Your task to perform on an android device: Find coffee shops on Maps Image 0: 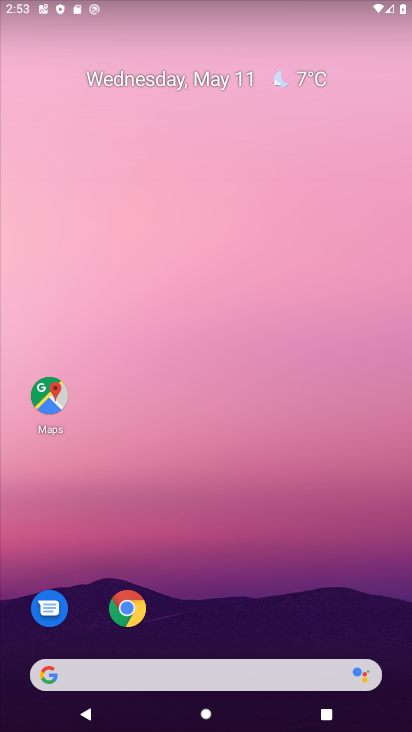
Step 0: click (61, 390)
Your task to perform on an android device: Find coffee shops on Maps Image 1: 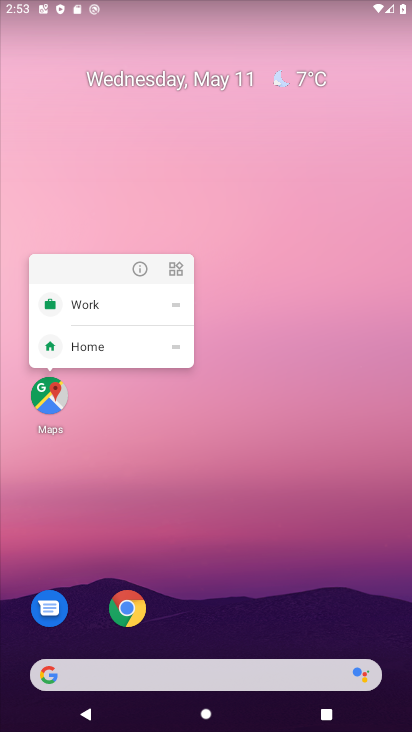
Step 1: click (43, 406)
Your task to perform on an android device: Find coffee shops on Maps Image 2: 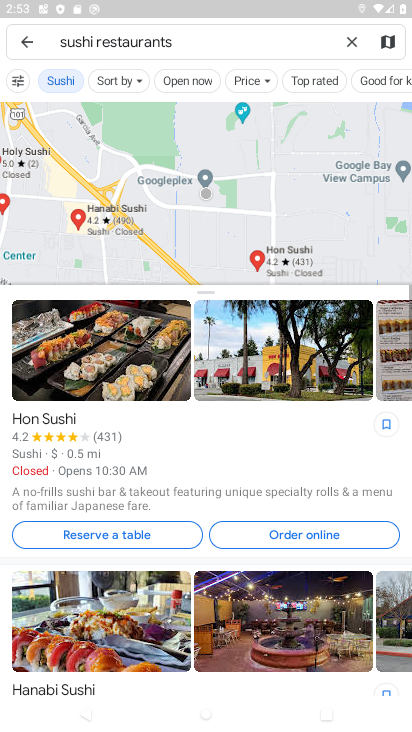
Step 2: click (351, 49)
Your task to perform on an android device: Find coffee shops on Maps Image 3: 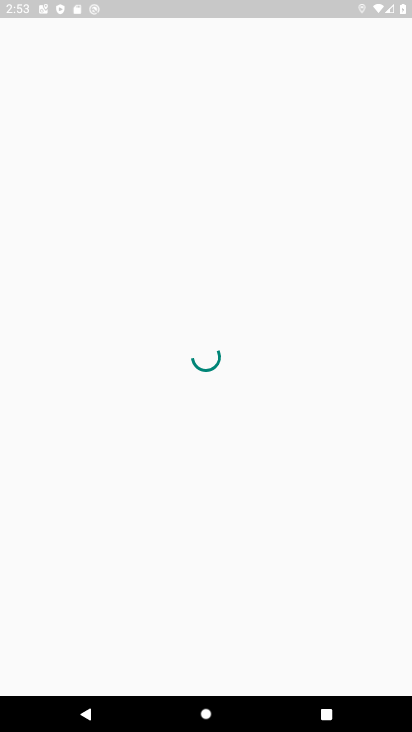
Step 3: click (182, 44)
Your task to perform on an android device: Find coffee shops on Maps Image 4: 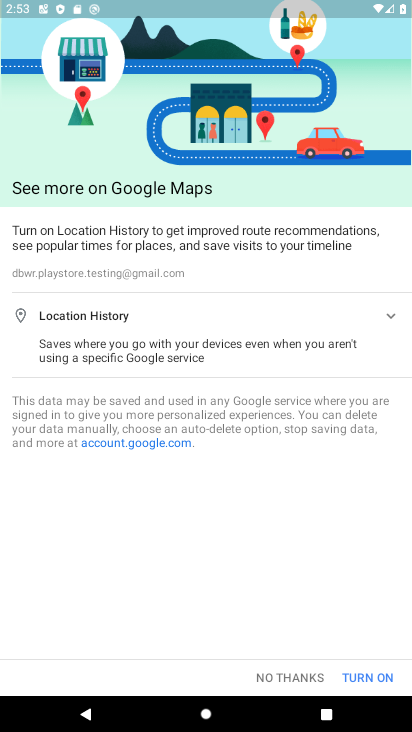
Step 4: press back button
Your task to perform on an android device: Find coffee shops on Maps Image 5: 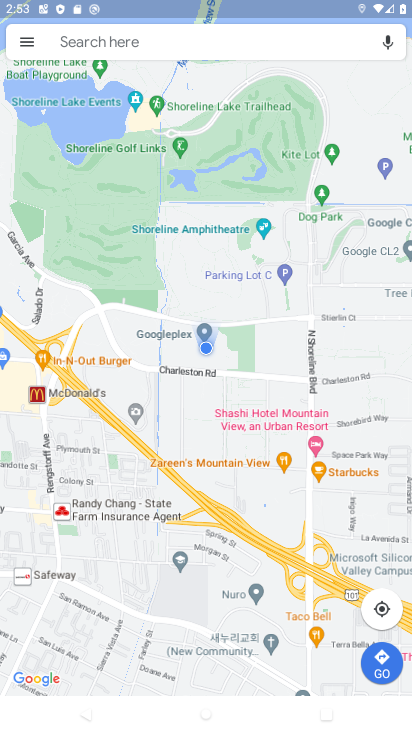
Step 5: click (159, 35)
Your task to perform on an android device: Find coffee shops on Maps Image 6: 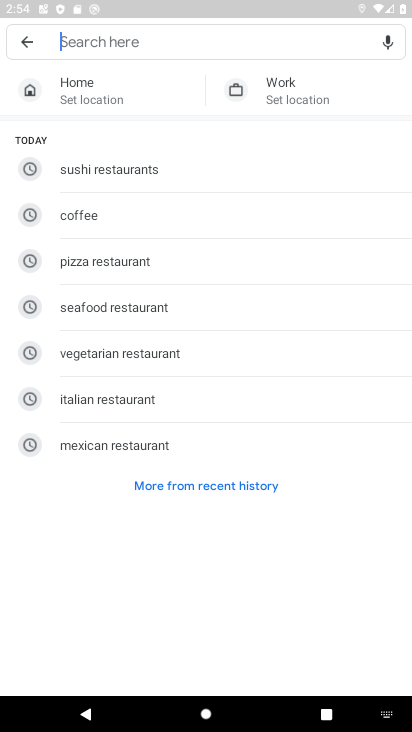
Step 6: type "coffee shops"
Your task to perform on an android device: Find coffee shops on Maps Image 7: 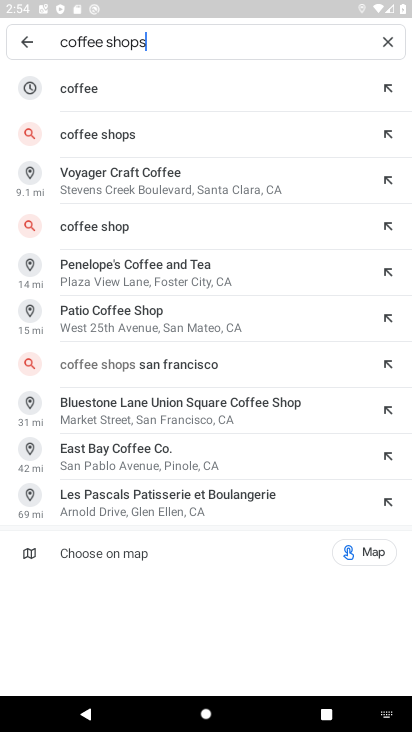
Step 7: click (123, 132)
Your task to perform on an android device: Find coffee shops on Maps Image 8: 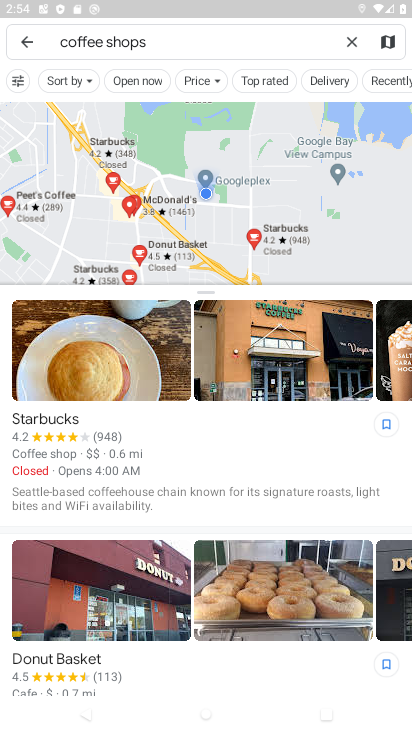
Step 8: task complete